Your task to perform on an android device: toggle translation in the chrome app Image 0: 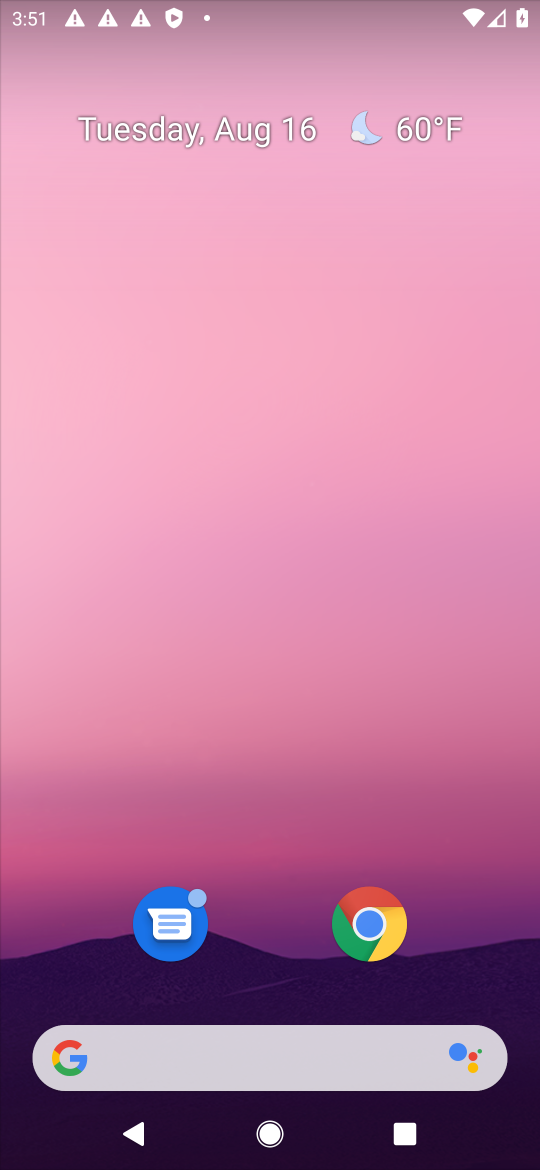
Step 0: drag from (275, 1000) to (318, 287)
Your task to perform on an android device: toggle translation in the chrome app Image 1: 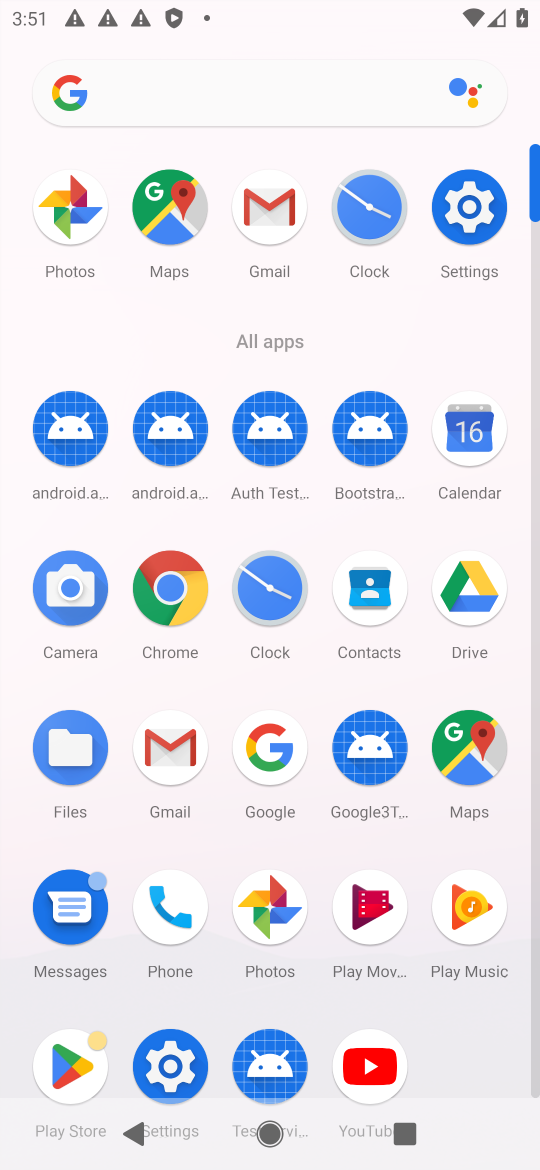
Step 1: click (168, 592)
Your task to perform on an android device: toggle translation in the chrome app Image 2: 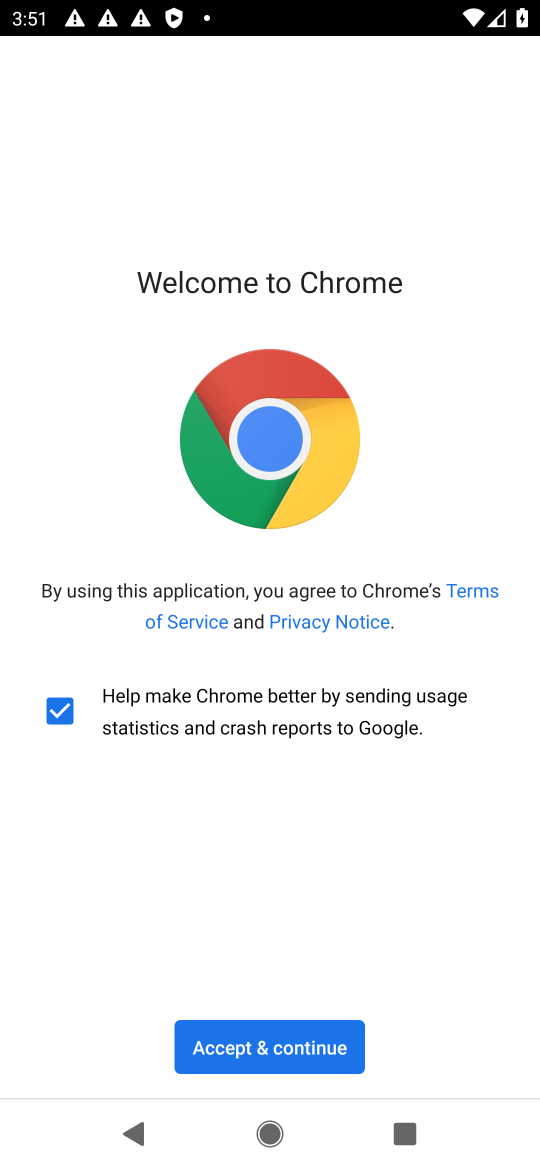
Step 2: click (294, 1044)
Your task to perform on an android device: toggle translation in the chrome app Image 3: 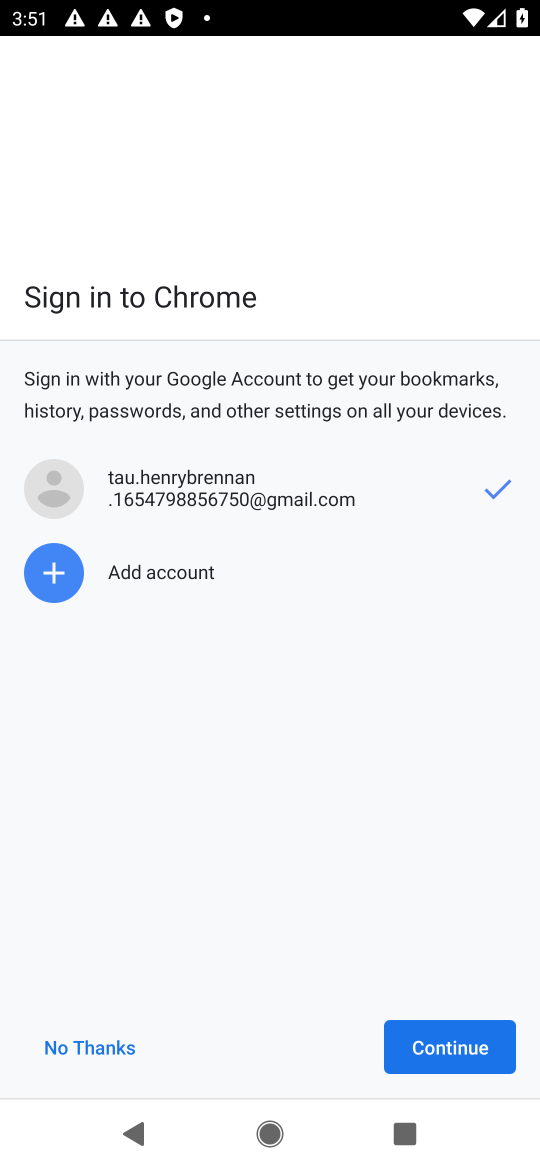
Step 3: click (294, 1044)
Your task to perform on an android device: toggle translation in the chrome app Image 4: 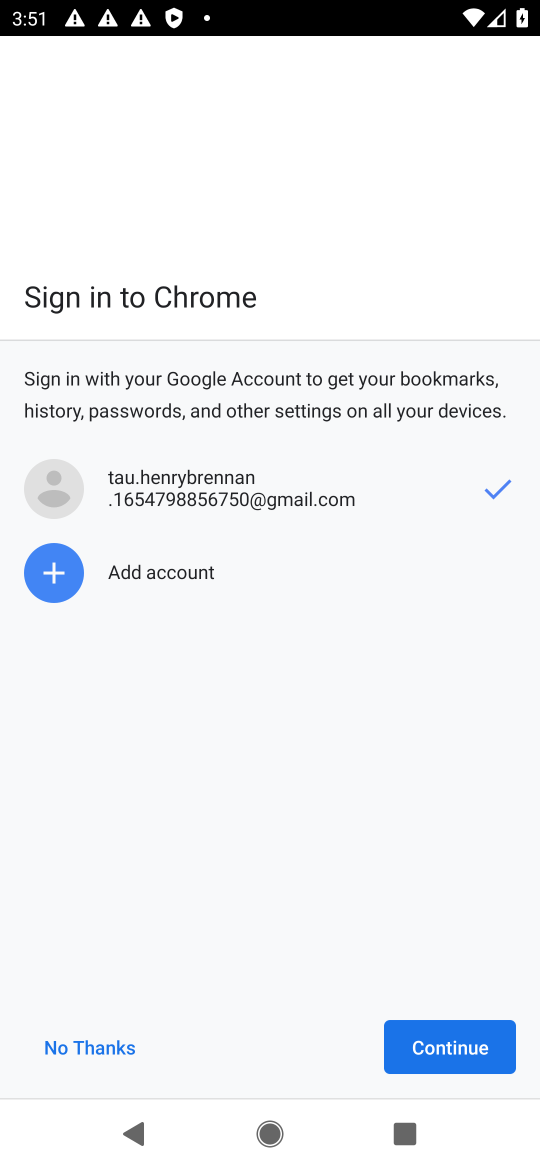
Step 4: click (450, 1044)
Your task to perform on an android device: toggle translation in the chrome app Image 5: 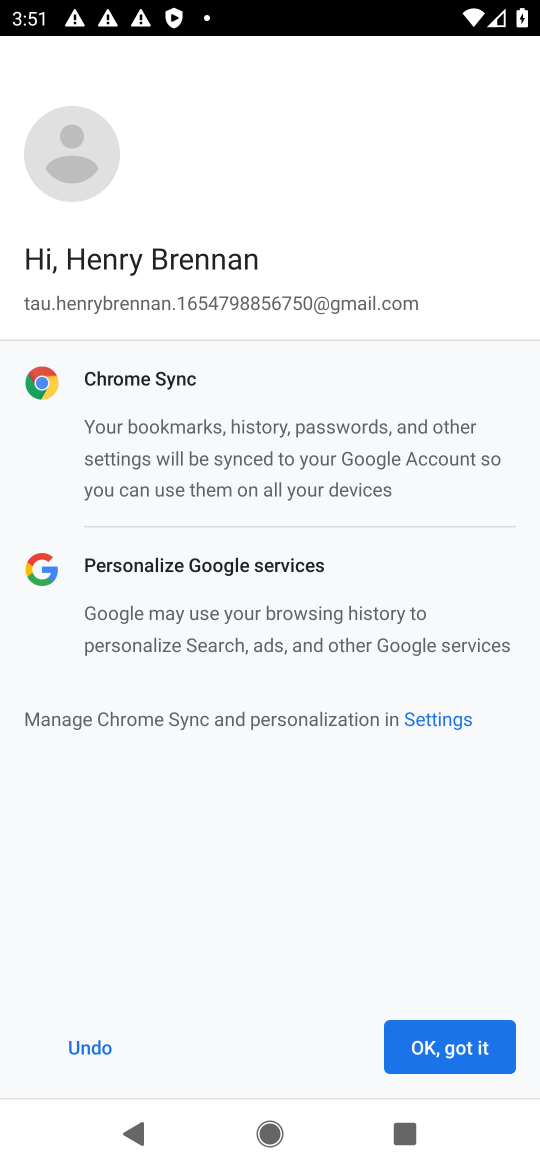
Step 5: click (450, 1044)
Your task to perform on an android device: toggle translation in the chrome app Image 6: 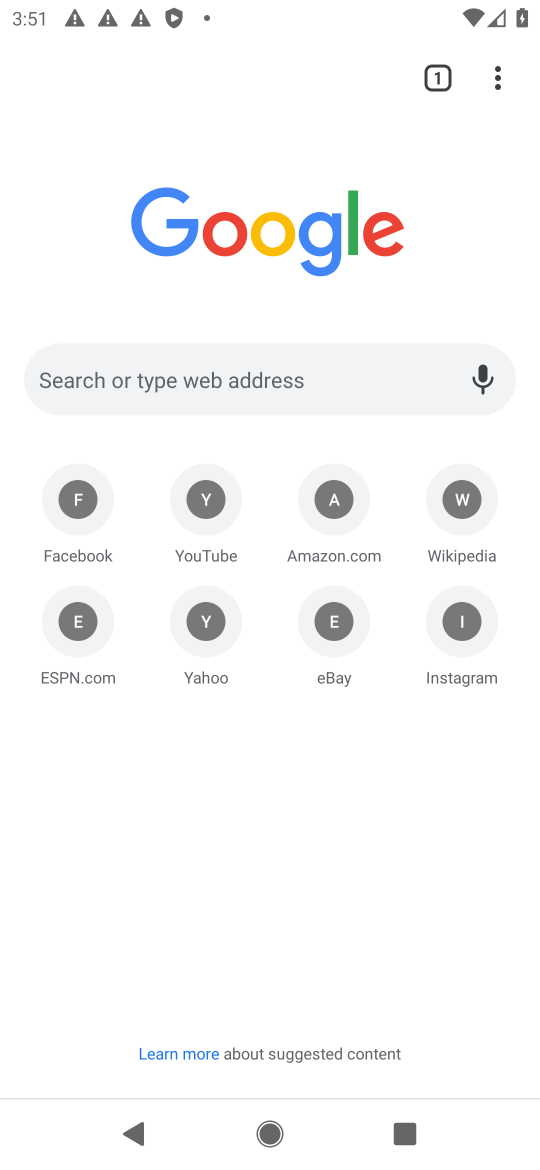
Step 6: click (512, 70)
Your task to perform on an android device: toggle translation in the chrome app Image 7: 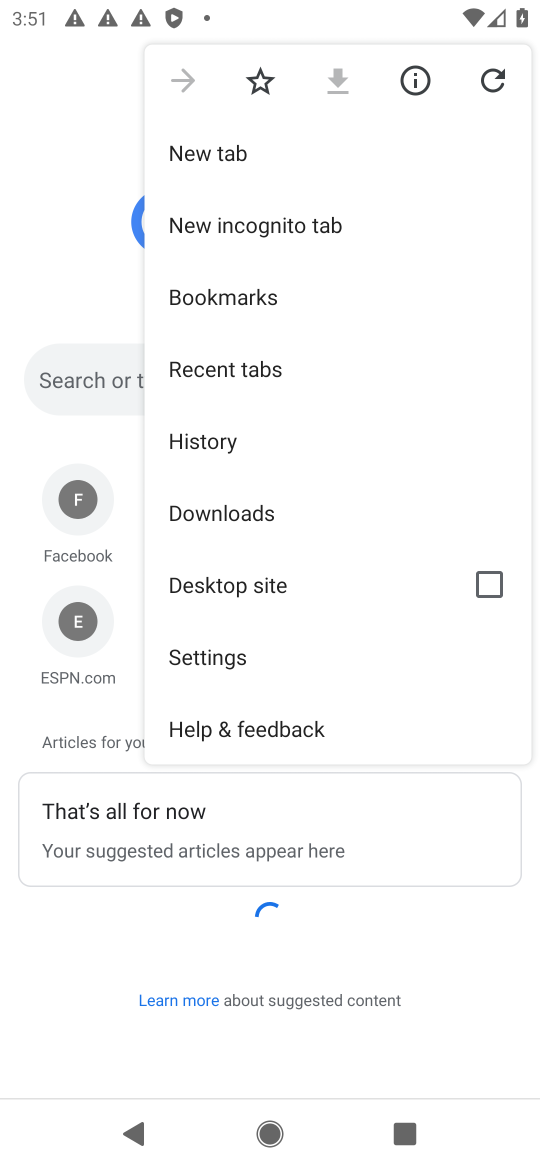
Step 7: click (210, 649)
Your task to perform on an android device: toggle translation in the chrome app Image 8: 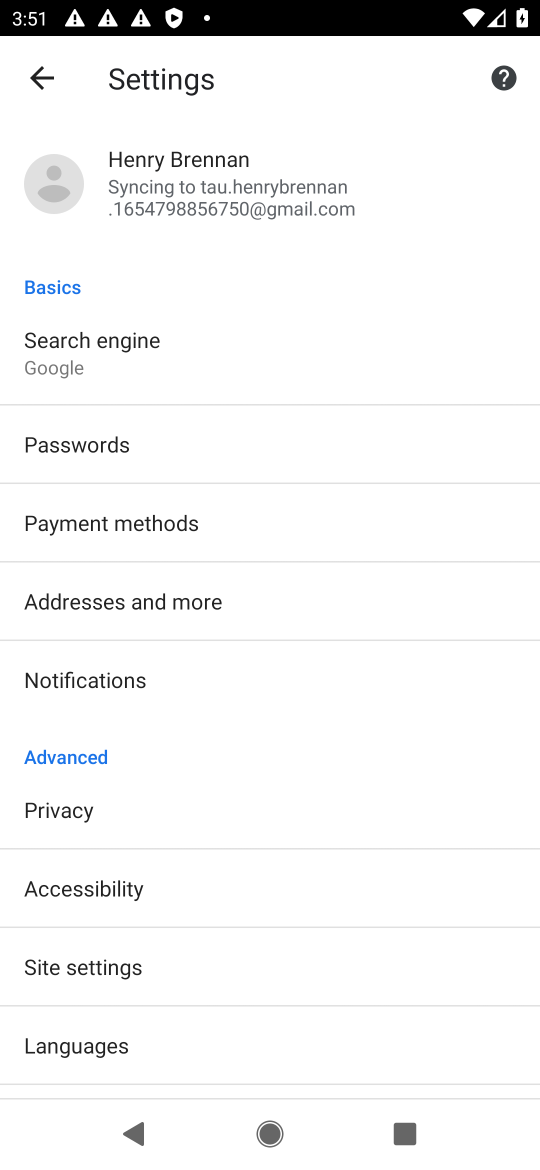
Step 8: click (175, 1036)
Your task to perform on an android device: toggle translation in the chrome app Image 9: 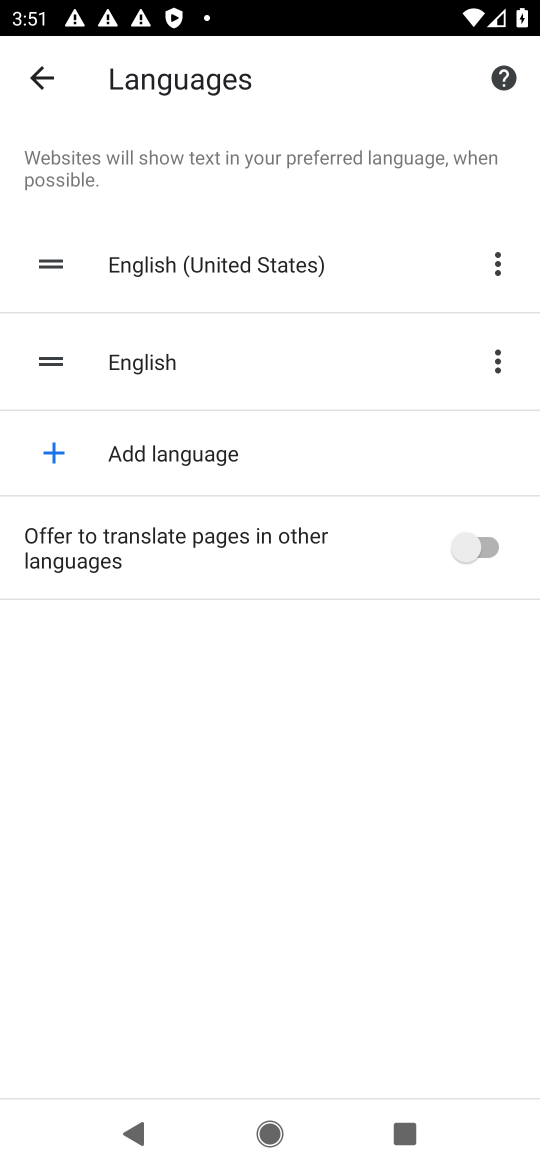
Step 9: click (488, 552)
Your task to perform on an android device: toggle translation in the chrome app Image 10: 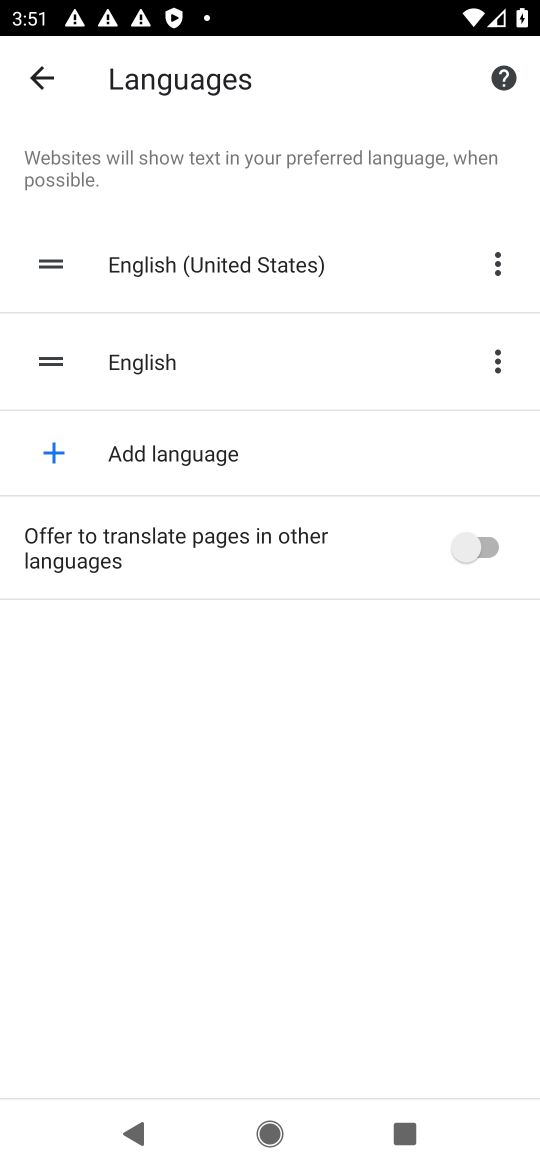
Step 10: click (488, 552)
Your task to perform on an android device: toggle translation in the chrome app Image 11: 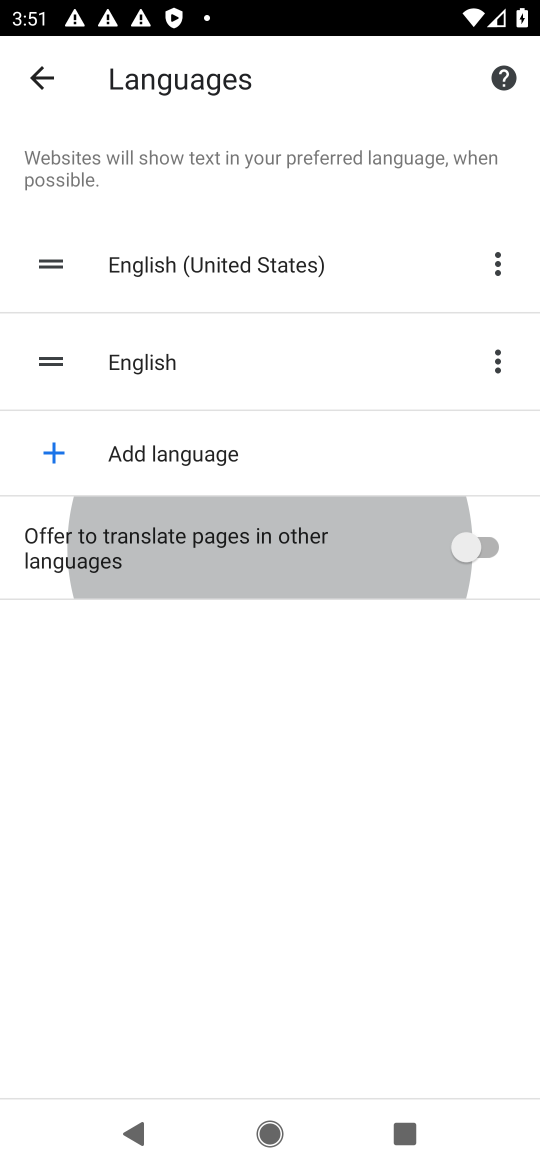
Step 11: click (488, 552)
Your task to perform on an android device: toggle translation in the chrome app Image 12: 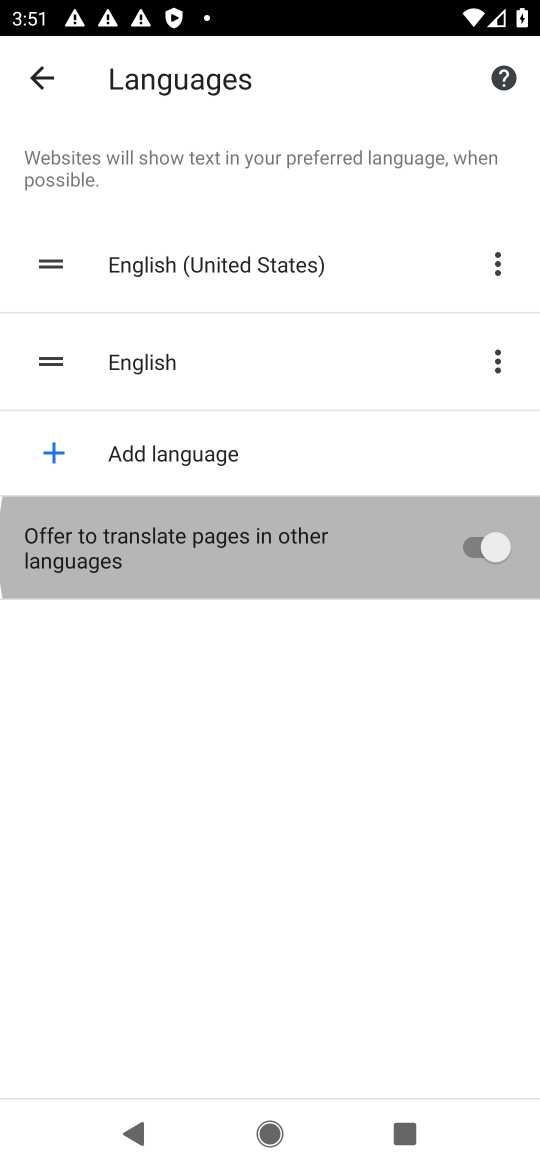
Step 12: click (488, 552)
Your task to perform on an android device: toggle translation in the chrome app Image 13: 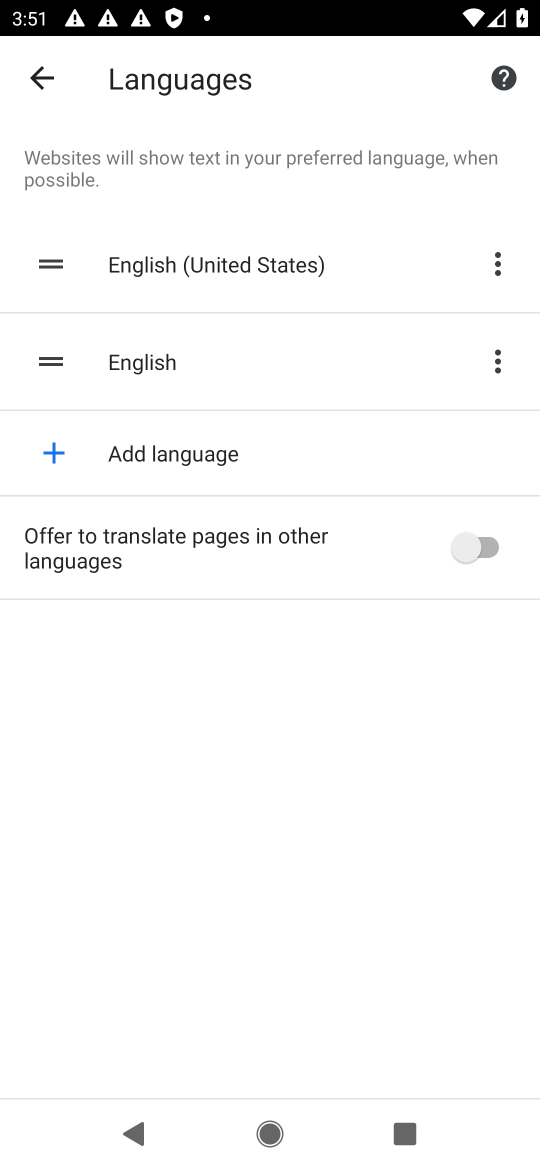
Step 13: click (488, 552)
Your task to perform on an android device: toggle translation in the chrome app Image 14: 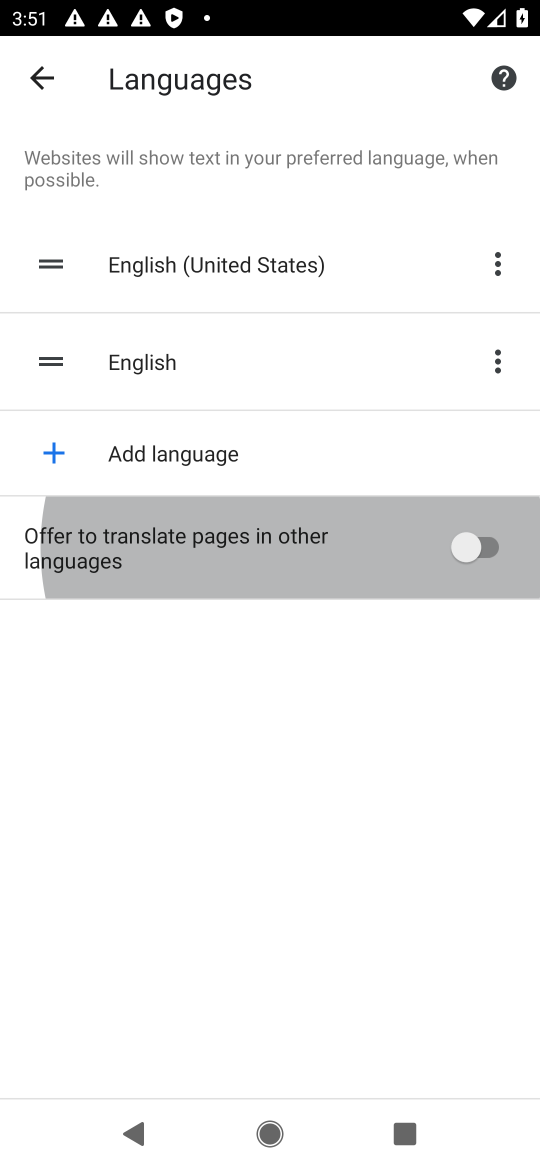
Step 14: click (488, 552)
Your task to perform on an android device: toggle translation in the chrome app Image 15: 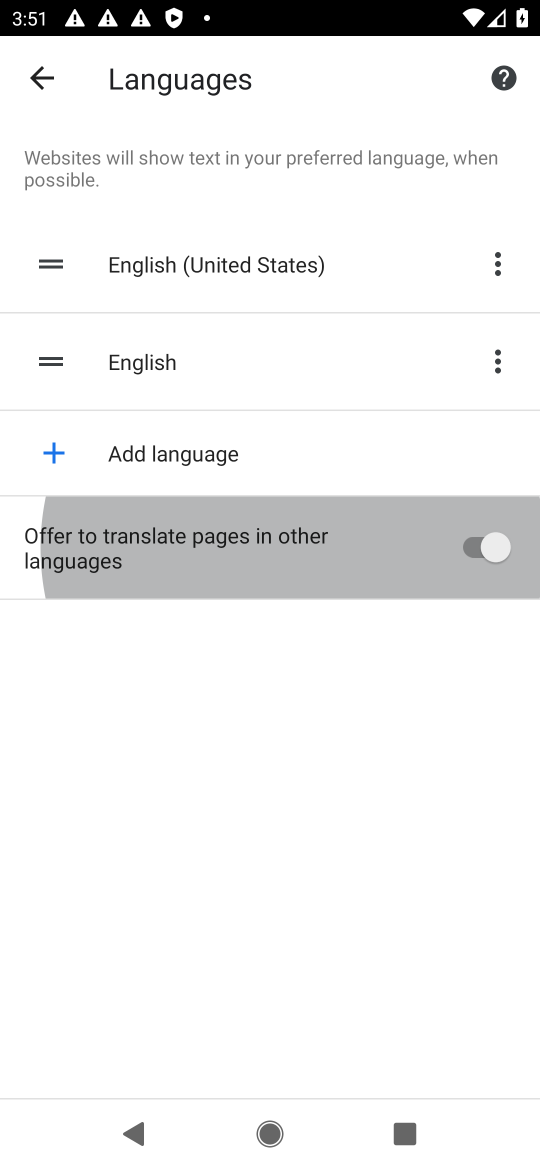
Step 15: click (488, 552)
Your task to perform on an android device: toggle translation in the chrome app Image 16: 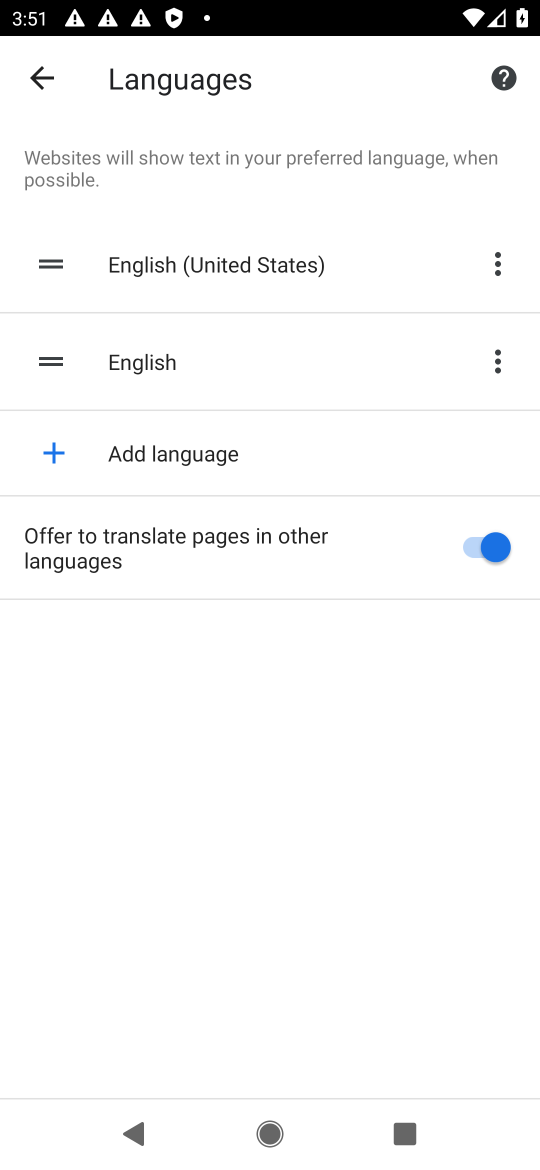
Step 16: task complete